Your task to perform on an android device: check google app version Image 0: 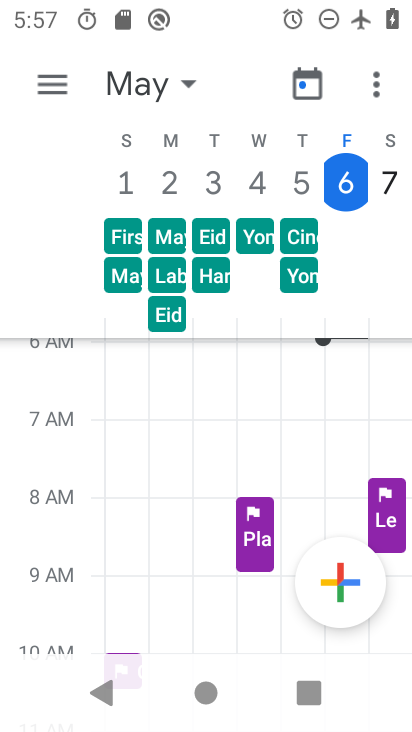
Step 0: press home button
Your task to perform on an android device: check google app version Image 1: 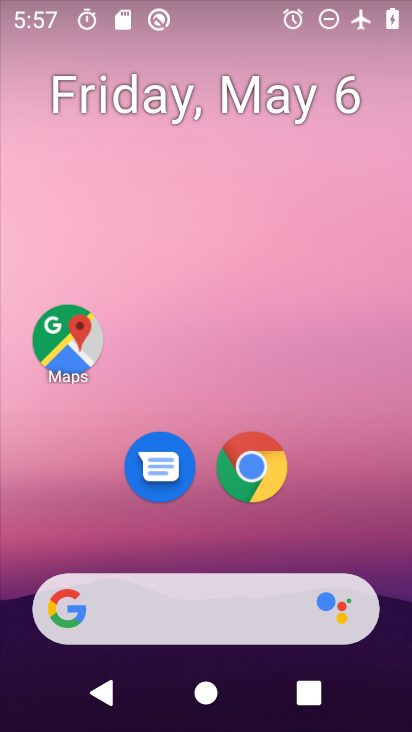
Step 1: drag from (313, 535) to (233, 100)
Your task to perform on an android device: check google app version Image 2: 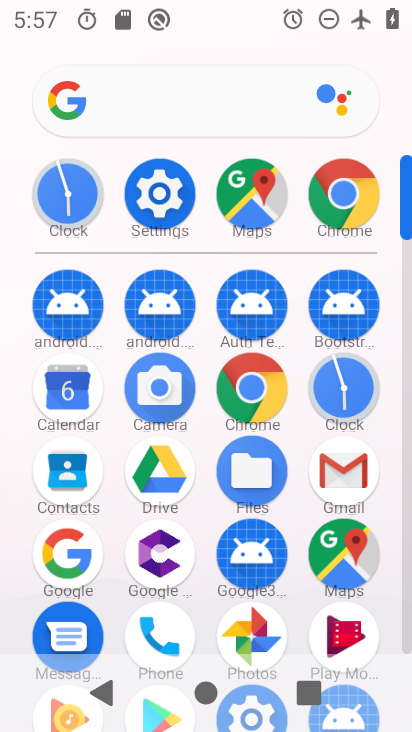
Step 2: click (84, 545)
Your task to perform on an android device: check google app version Image 3: 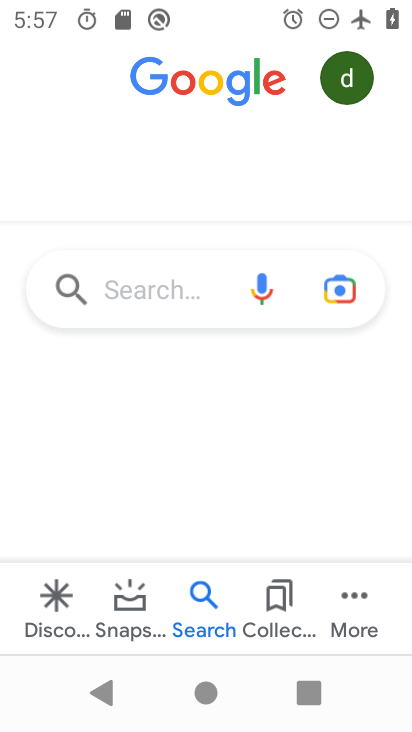
Step 3: click (348, 615)
Your task to perform on an android device: check google app version Image 4: 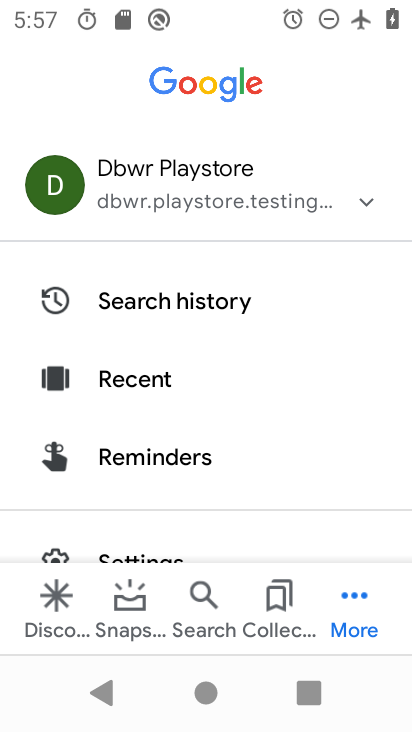
Step 4: drag from (172, 545) to (225, 252)
Your task to perform on an android device: check google app version Image 5: 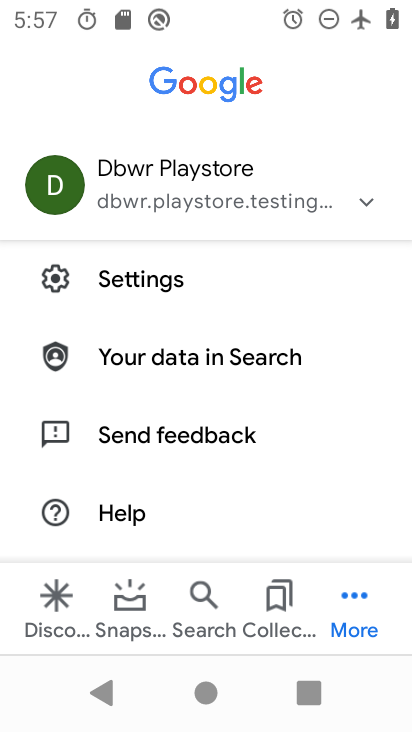
Step 5: click (150, 283)
Your task to perform on an android device: check google app version Image 6: 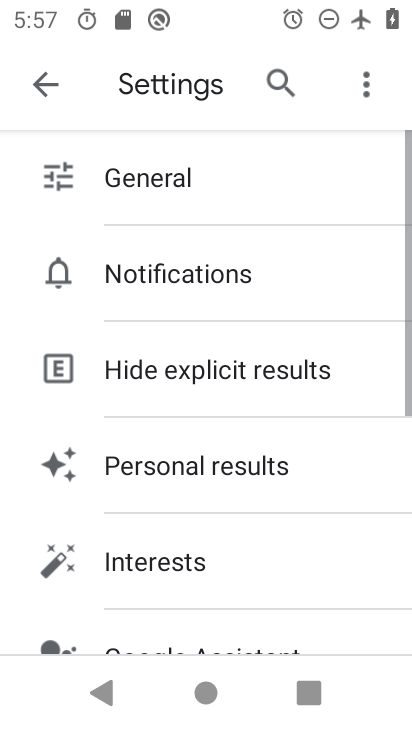
Step 6: drag from (181, 584) to (225, 291)
Your task to perform on an android device: check google app version Image 7: 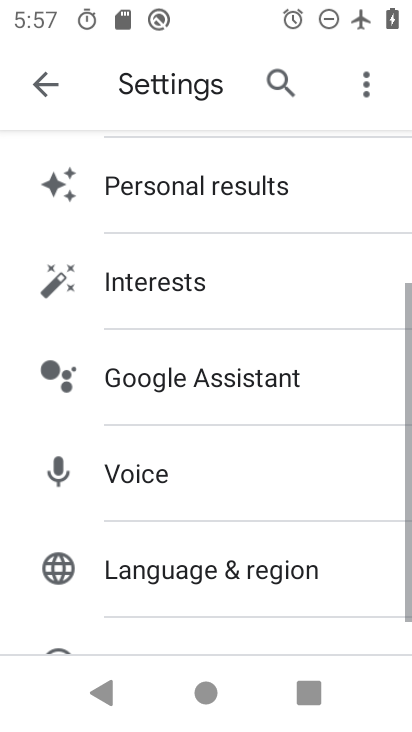
Step 7: drag from (167, 587) to (182, 308)
Your task to perform on an android device: check google app version Image 8: 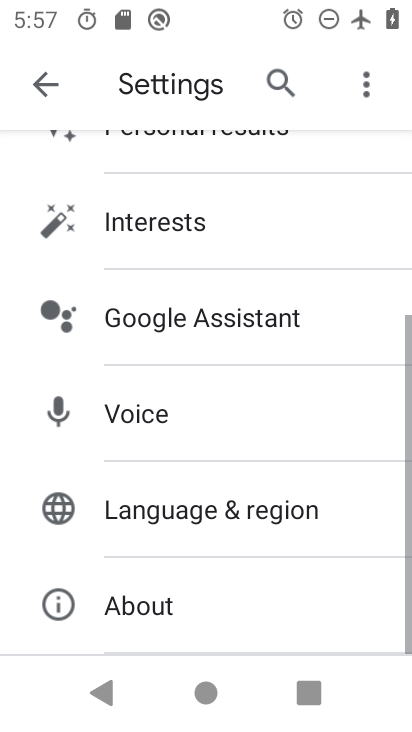
Step 8: click (156, 616)
Your task to perform on an android device: check google app version Image 9: 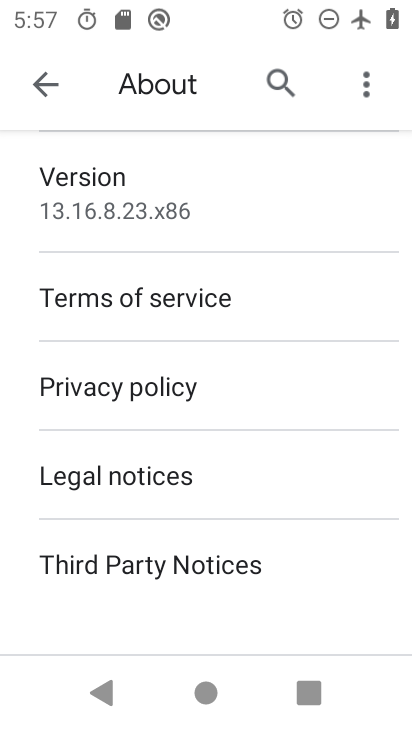
Step 9: task complete